Your task to perform on an android device: open chrome privacy settings Image 0: 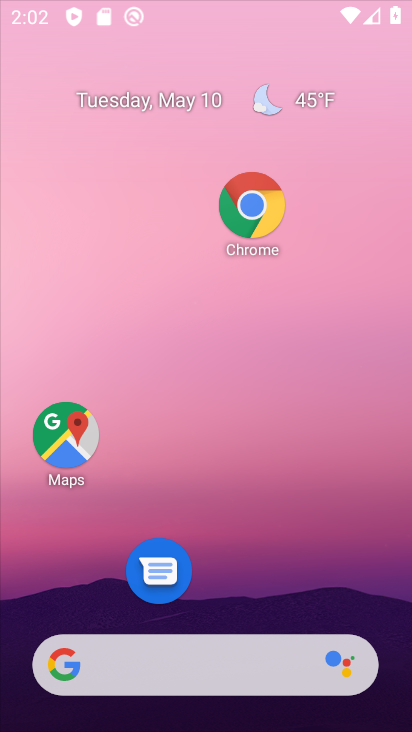
Step 0: click (249, 216)
Your task to perform on an android device: open chrome privacy settings Image 1: 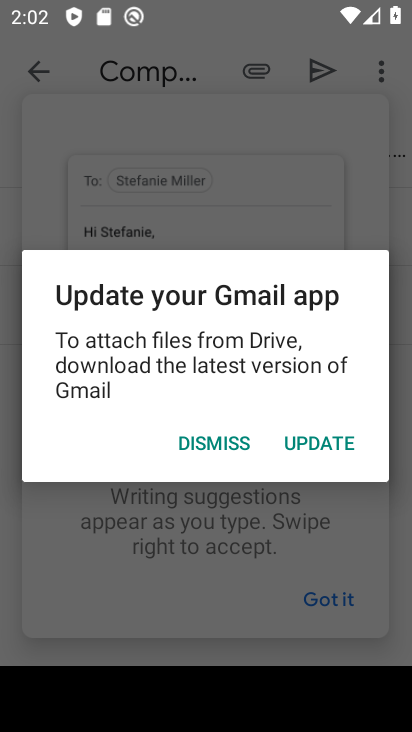
Step 1: press home button
Your task to perform on an android device: open chrome privacy settings Image 2: 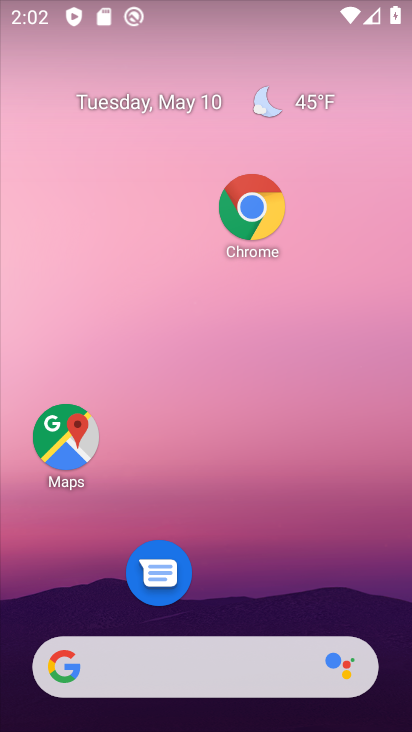
Step 2: click (256, 234)
Your task to perform on an android device: open chrome privacy settings Image 3: 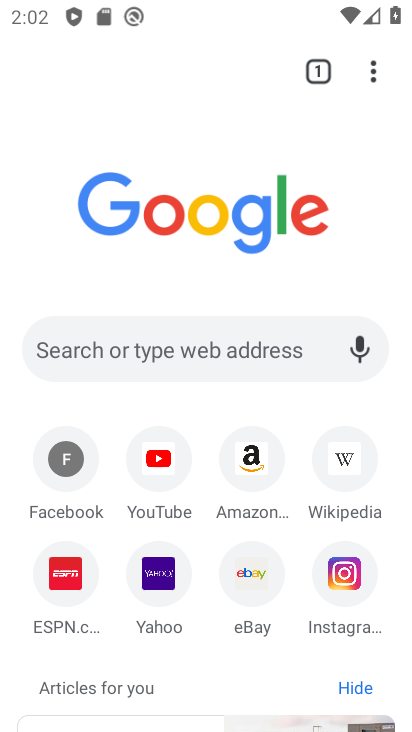
Step 3: click (377, 80)
Your task to perform on an android device: open chrome privacy settings Image 4: 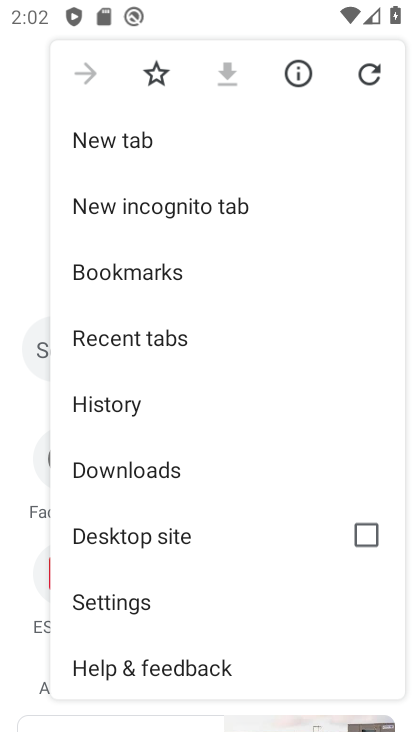
Step 4: click (132, 591)
Your task to perform on an android device: open chrome privacy settings Image 5: 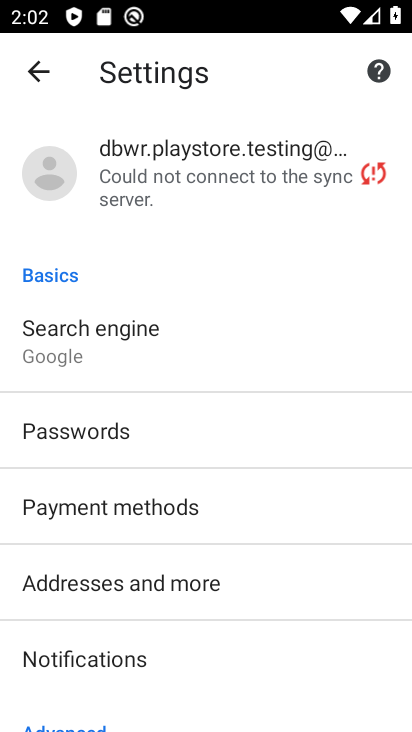
Step 5: drag from (106, 608) to (164, 171)
Your task to perform on an android device: open chrome privacy settings Image 6: 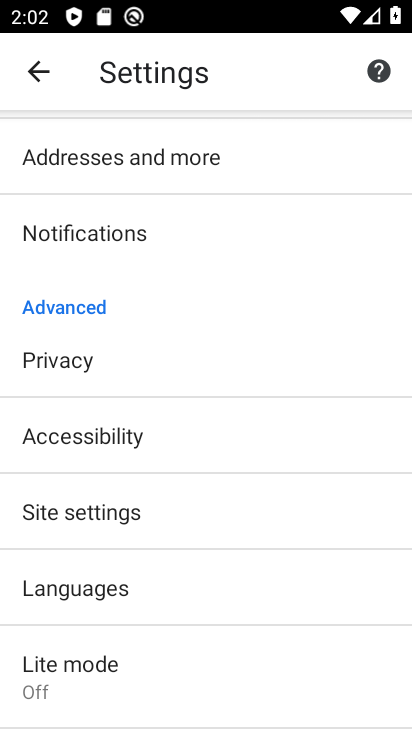
Step 6: click (70, 363)
Your task to perform on an android device: open chrome privacy settings Image 7: 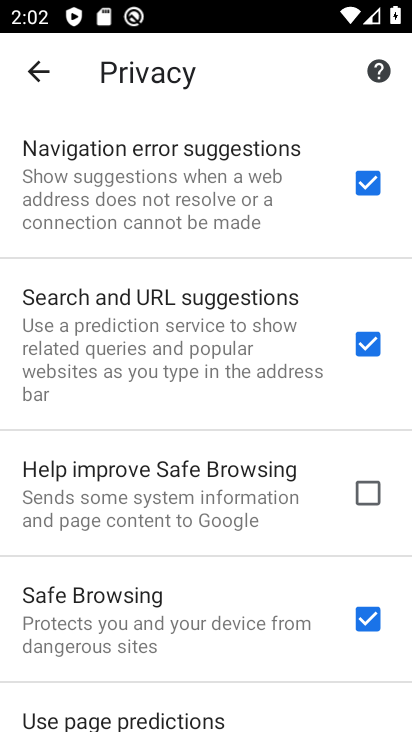
Step 7: task complete